Your task to perform on an android device: What's the weather today? Image 0: 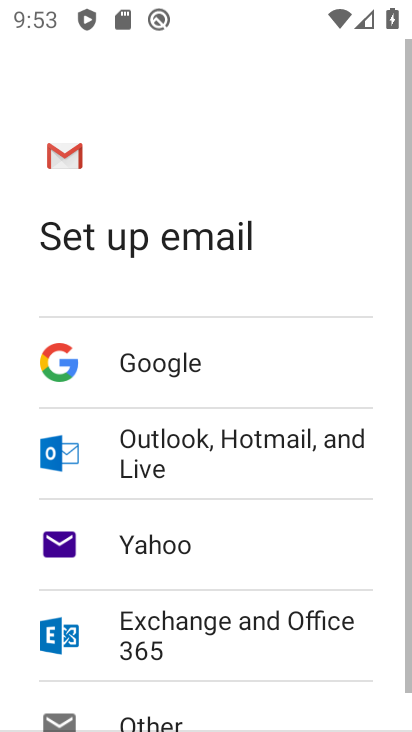
Step 0: press home button
Your task to perform on an android device: What's the weather today? Image 1: 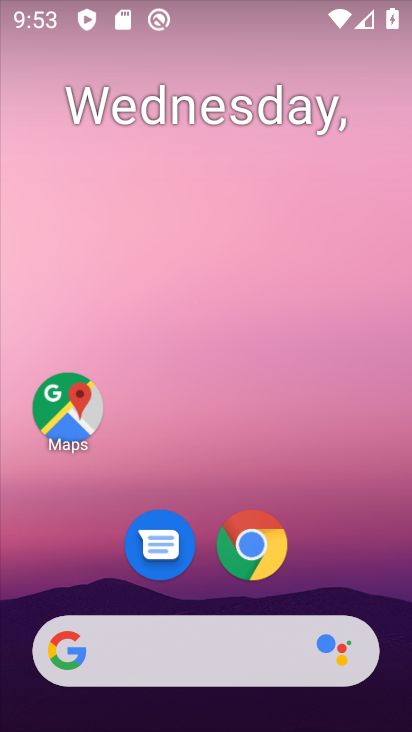
Step 1: drag from (344, 502) to (307, 170)
Your task to perform on an android device: What's the weather today? Image 2: 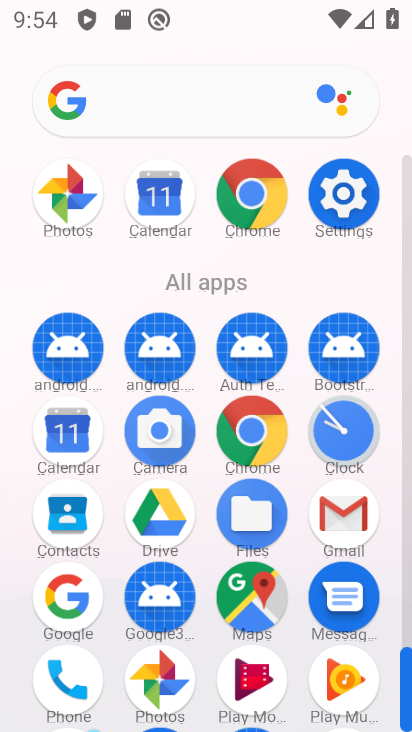
Step 2: drag from (80, 601) to (103, 196)
Your task to perform on an android device: What's the weather today? Image 3: 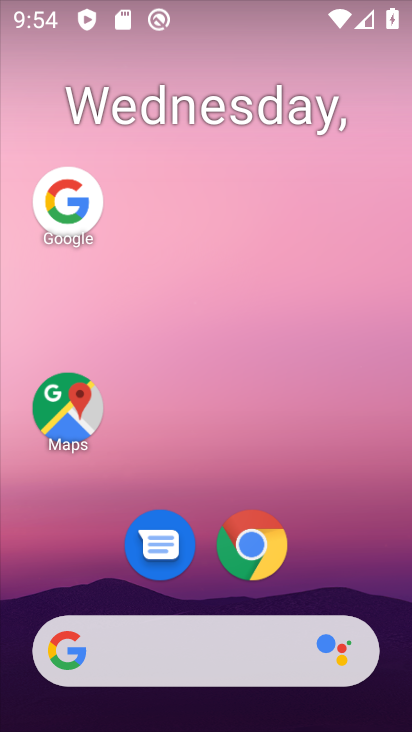
Step 3: click (81, 200)
Your task to perform on an android device: What's the weather today? Image 4: 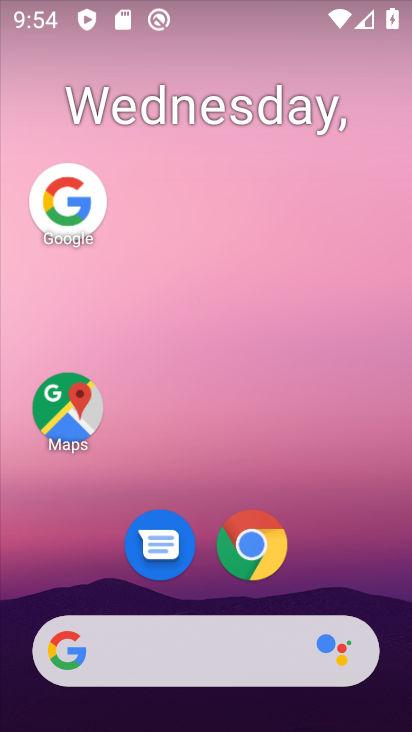
Step 4: click (48, 208)
Your task to perform on an android device: What's the weather today? Image 5: 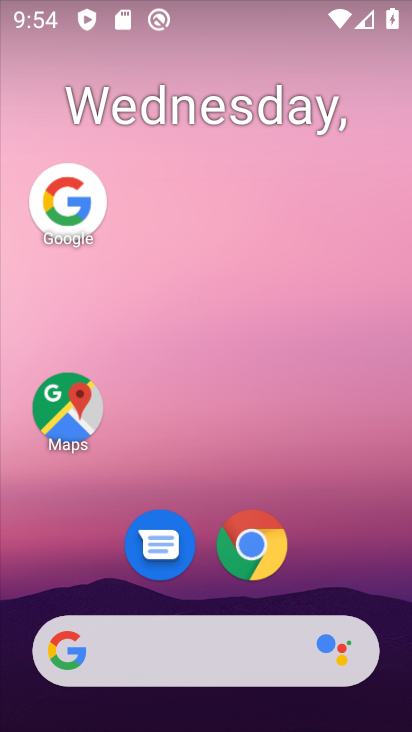
Step 5: click (344, 319)
Your task to perform on an android device: What's the weather today? Image 6: 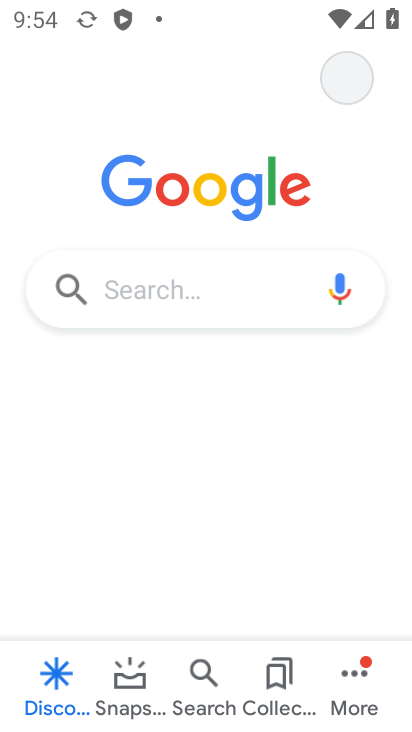
Step 6: click (237, 294)
Your task to perform on an android device: What's the weather today? Image 7: 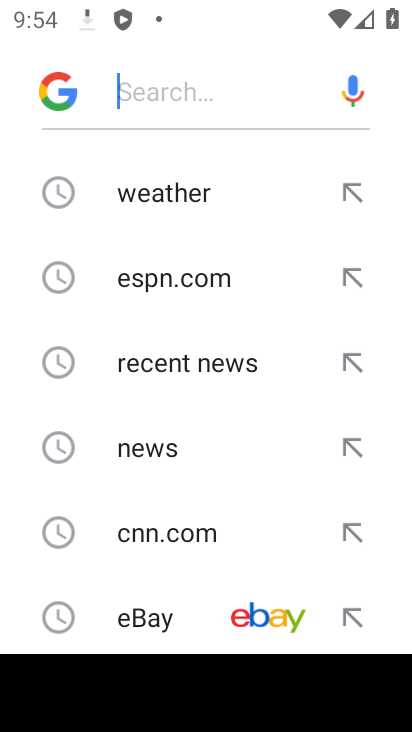
Step 7: click (147, 195)
Your task to perform on an android device: What's the weather today? Image 8: 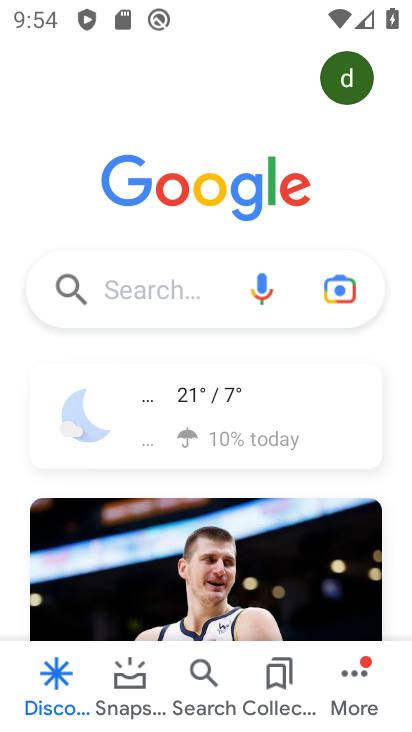
Step 8: click (200, 394)
Your task to perform on an android device: What's the weather today? Image 9: 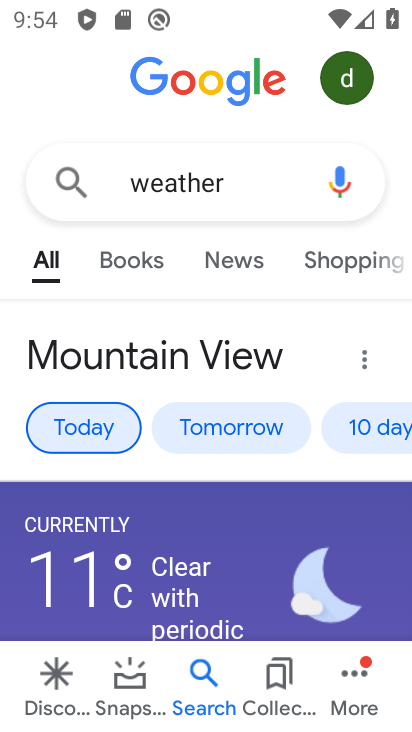
Step 9: task complete